Your task to perform on an android device: Search for pizza restaurants on Maps Image 0: 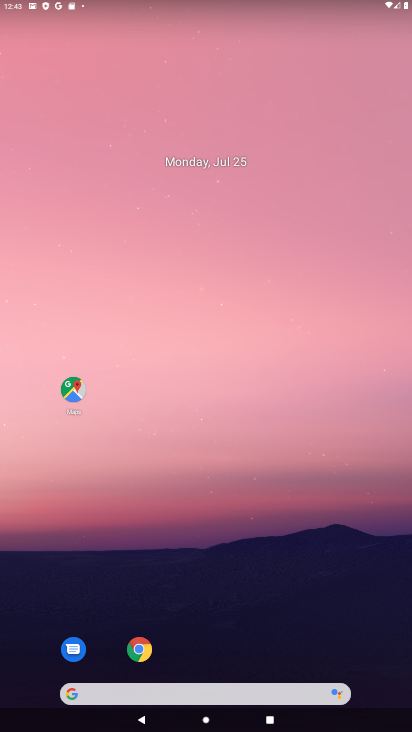
Step 0: drag from (259, 368) to (108, 200)
Your task to perform on an android device: Search for pizza restaurants on Maps Image 1: 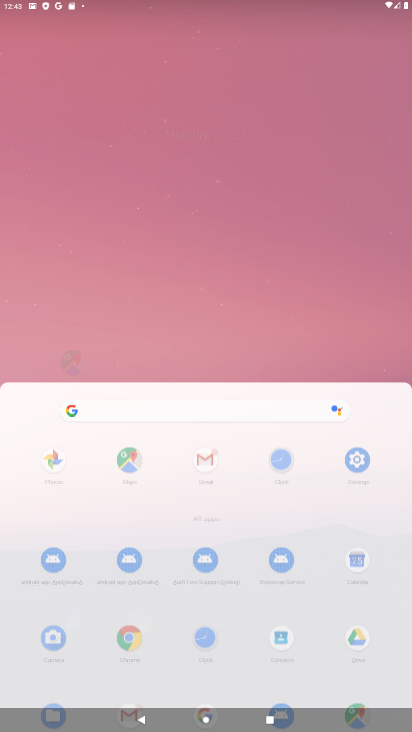
Step 1: drag from (198, 378) to (255, 63)
Your task to perform on an android device: Search for pizza restaurants on Maps Image 2: 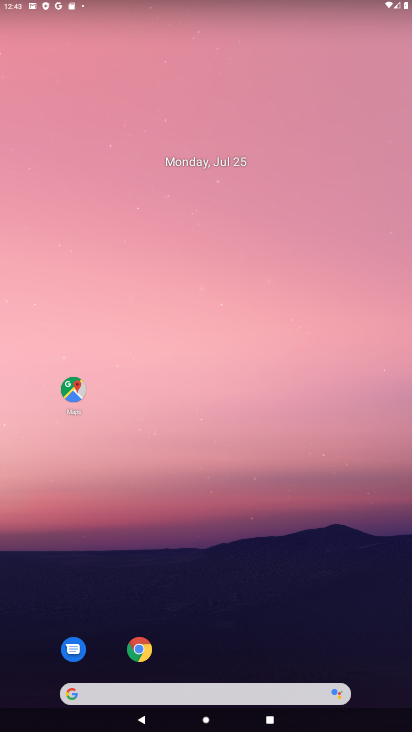
Step 2: drag from (202, 445) to (245, 20)
Your task to perform on an android device: Search for pizza restaurants on Maps Image 3: 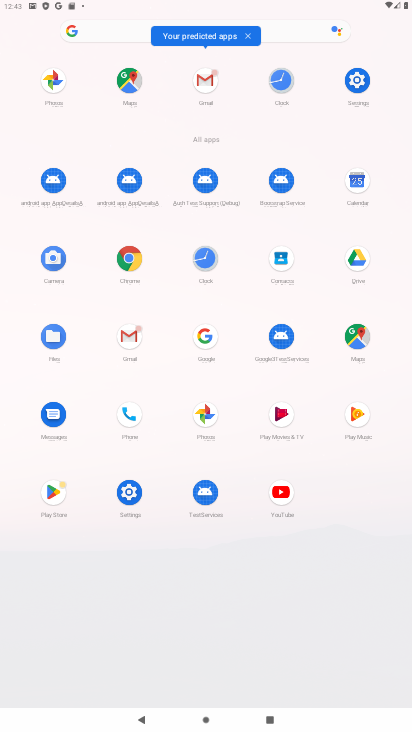
Step 3: click (355, 334)
Your task to perform on an android device: Search for pizza restaurants on Maps Image 4: 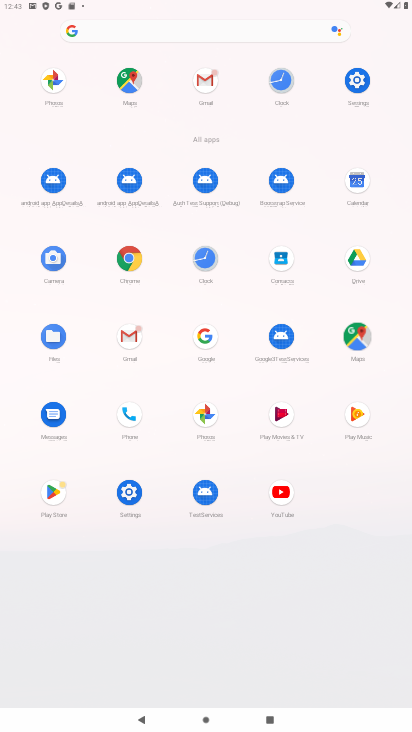
Step 4: click (355, 334)
Your task to perform on an android device: Search for pizza restaurants on Maps Image 5: 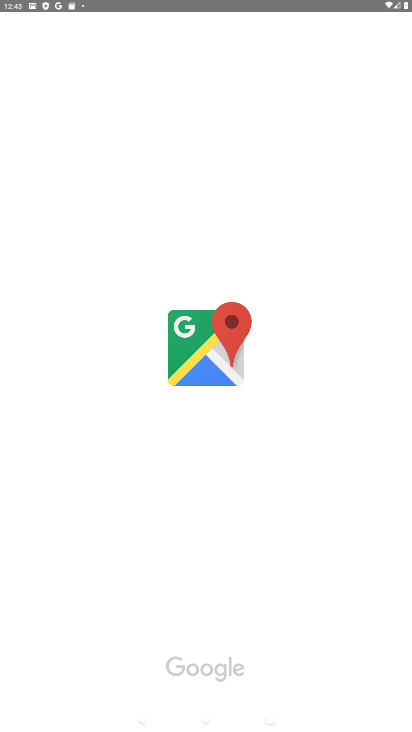
Step 5: click (356, 331)
Your task to perform on an android device: Search for pizza restaurants on Maps Image 6: 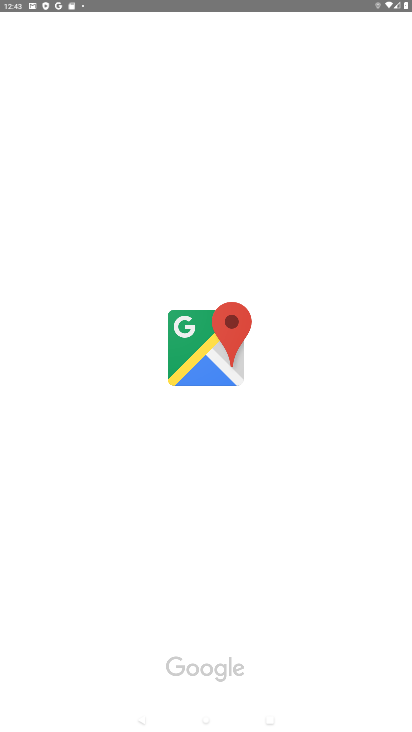
Step 6: click (356, 331)
Your task to perform on an android device: Search for pizza restaurants on Maps Image 7: 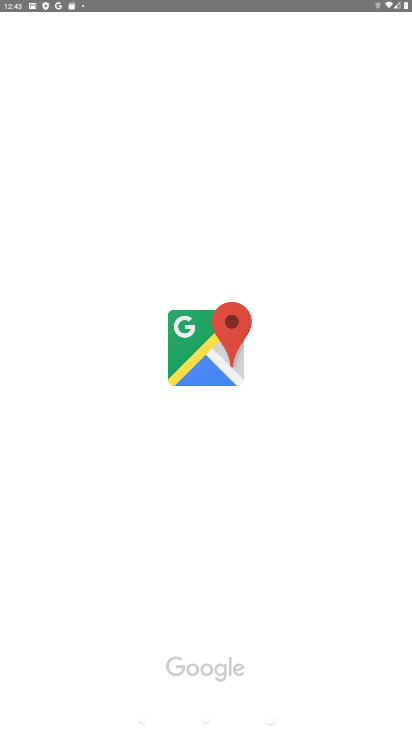
Step 7: click (193, 335)
Your task to perform on an android device: Search for pizza restaurants on Maps Image 8: 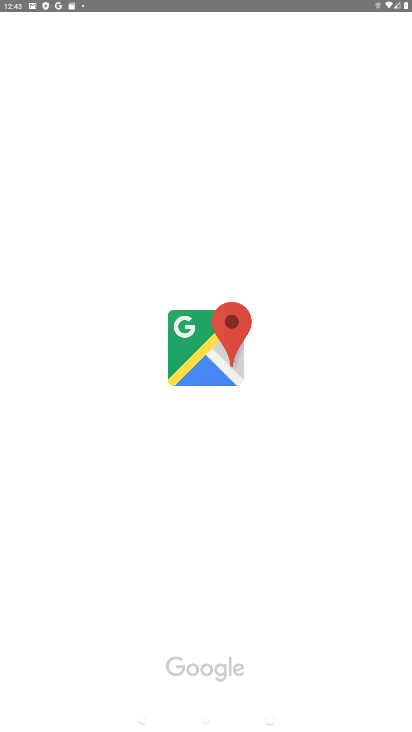
Step 8: click (196, 336)
Your task to perform on an android device: Search for pizza restaurants on Maps Image 9: 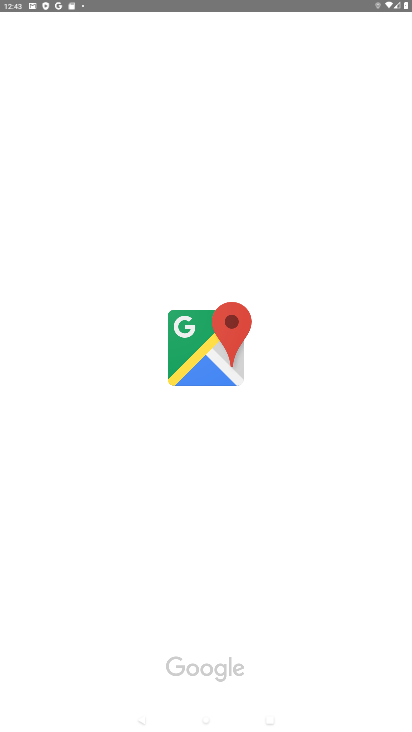
Step 9: click (200, 343)
Your task to perform on an android device: Search for pizza restaurants on Maps Image 10: 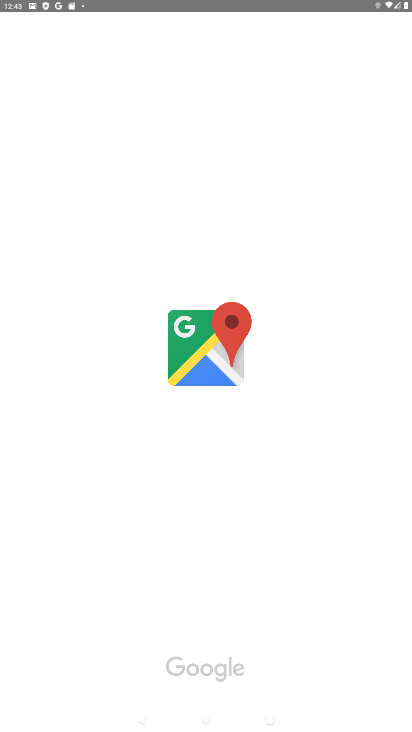
Step 10: click (205, 344)
Your task to perform on an android device: Search for pizza restaurants on Maps Image 11: 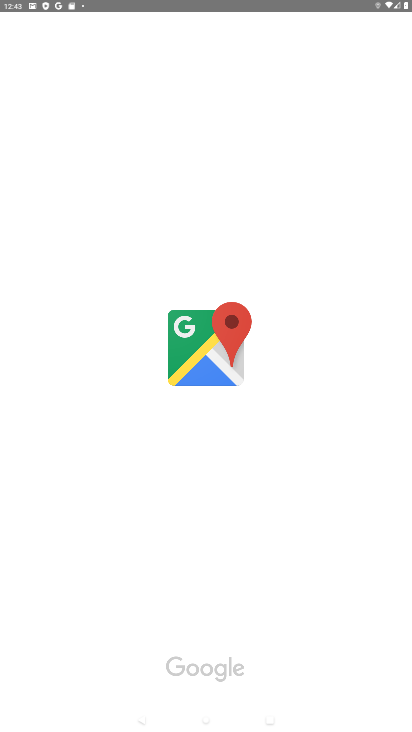
Step 11: click (211, 346)
Your task to perform on an android device: Search for pizza restaurants on Maps Image 12: 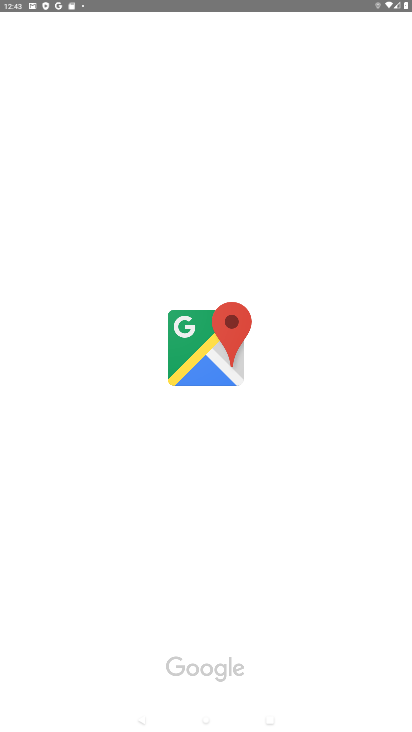
Step 12: click (215, 336)
Your task to perform on an android device: Search for pizza restaurants on Maps Image 13: 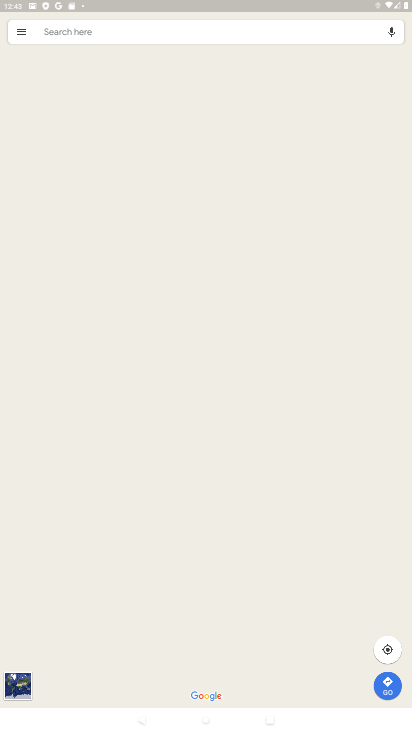
Step 13: click (204, 356)
Your task to perform on an android device: Search for pizza restaurants on Maps Image 14: 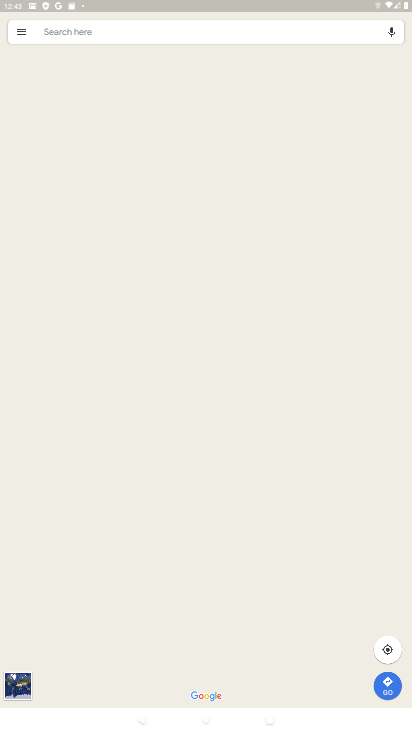
Step 14: click (196, 364)
Your task to perform on an android device: Search for pizza restaurants on Maps Image 15: 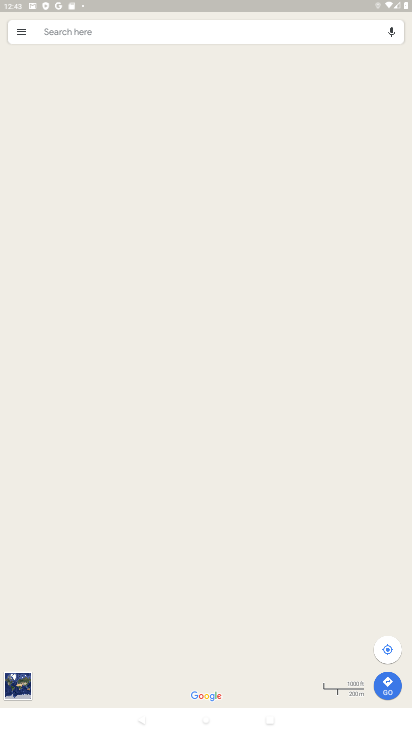
Step 15: click (66, 28)
Your task to perform on an android device: Search for pizza restaurants on Maps Image 16: 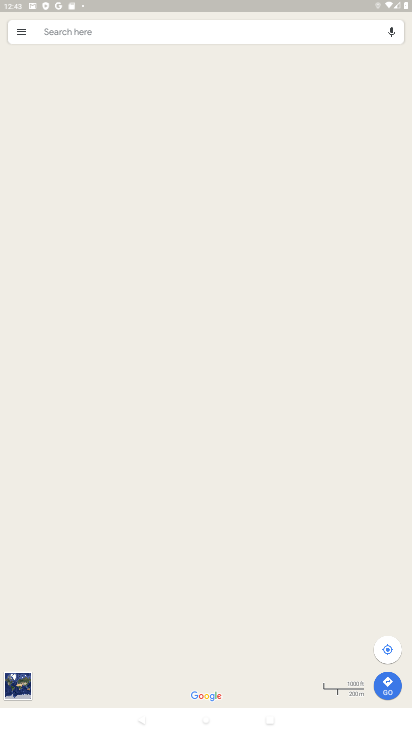
Step 16: click (66, 28)
Your task to perform on an android device: Search for pizza restaurants on Maps Image 17: 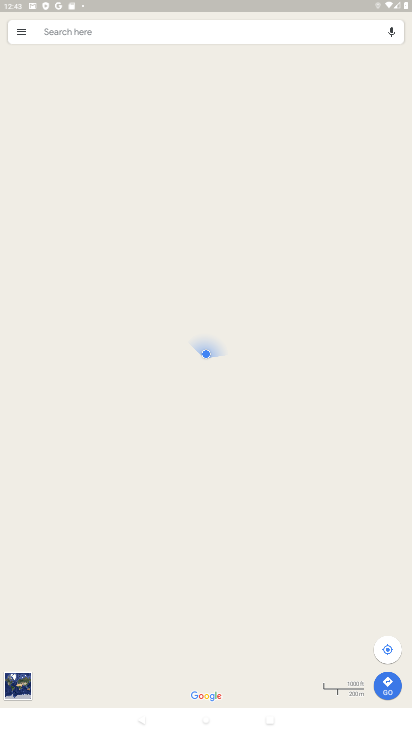
Step 17: click (59, 38)
Your task to perform on an android device: Search for pizza restaurants on Maps Image 18: 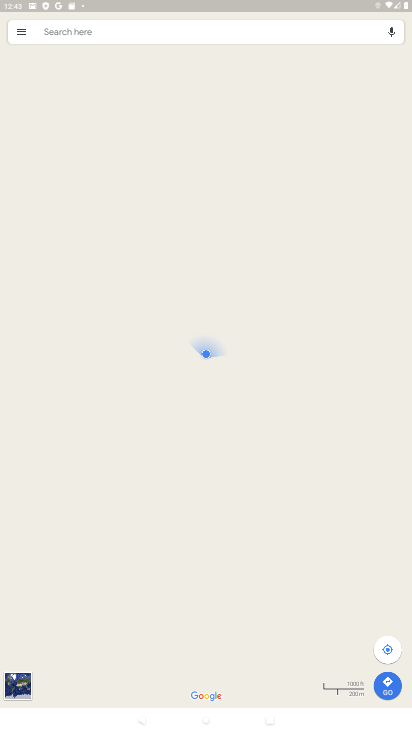
Step 18: click (52, 33)
Your task to perform on an android device: Search for pizza restaurants on Maps Image 19: 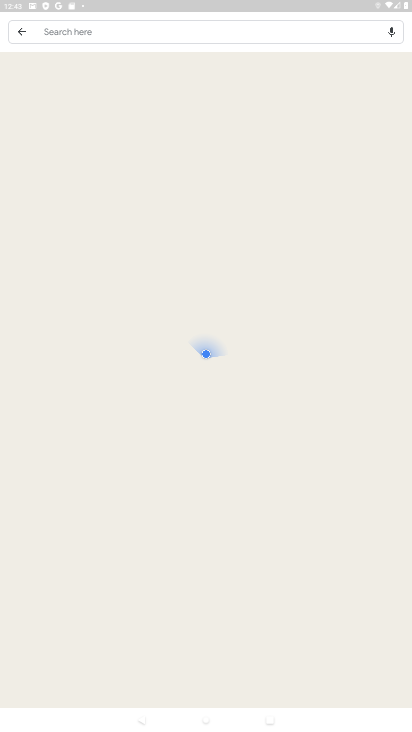
Step 19: click (52, 33)
Your task to perform on an android device: Search for pizza restaurants on Maps Image 20: 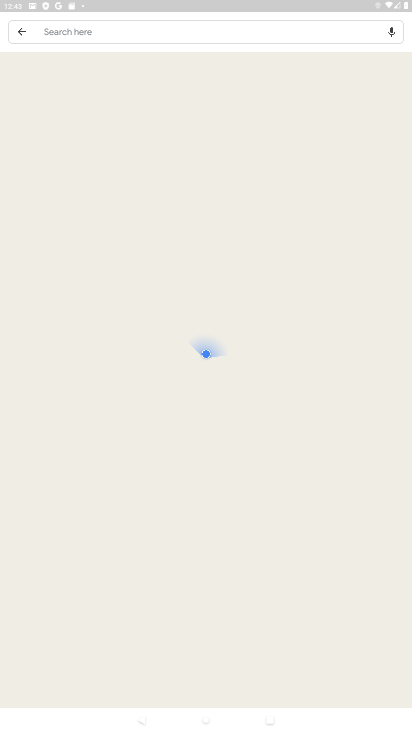
Step 20: click (53, 35)
Your task to perform on an android device: Search for pizza restaurants on Maps Image 21: 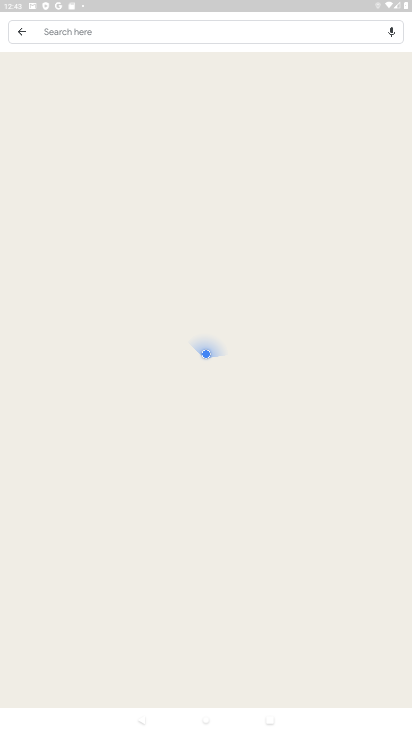
Step 21: click (51, 36)
Your task to perform on an android device: Search for pizza restaurants on Maps Image 22: 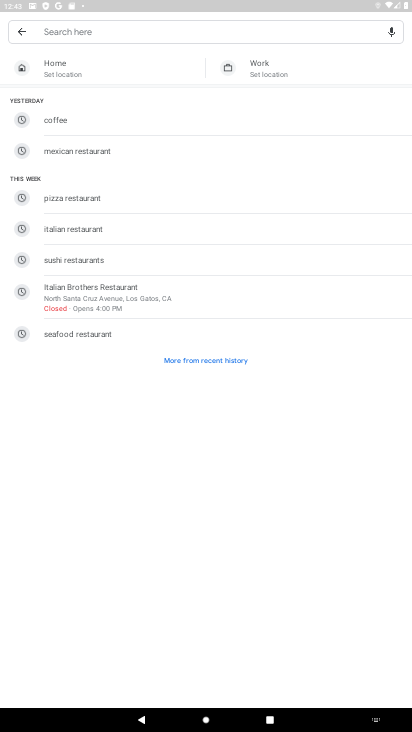
Step 22: type "pizz"
Your task to perform on an android device: Search for pizza restaurants on Maps Image 23: 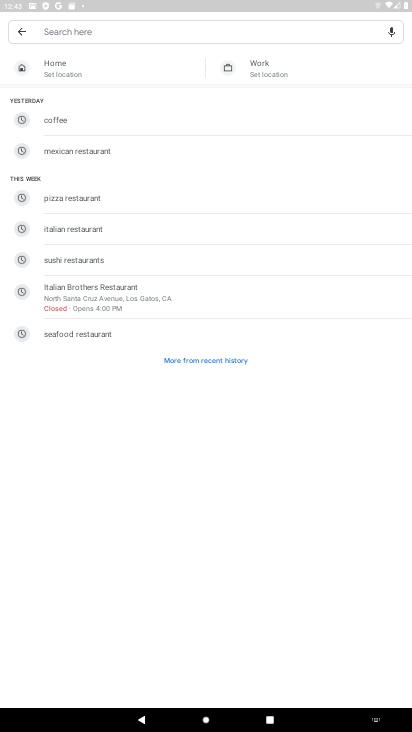
Step 23: click (57, 181)
Your task to perform on an android device: Search for pizza restaurants on Maps Image 24: 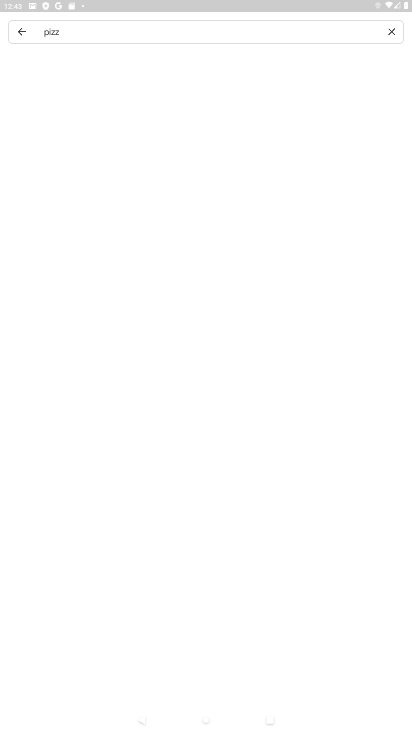
Step 24: click (76, 197)
Your task to perform on an android device: Search for pizza restaurants on Maps Image 25: 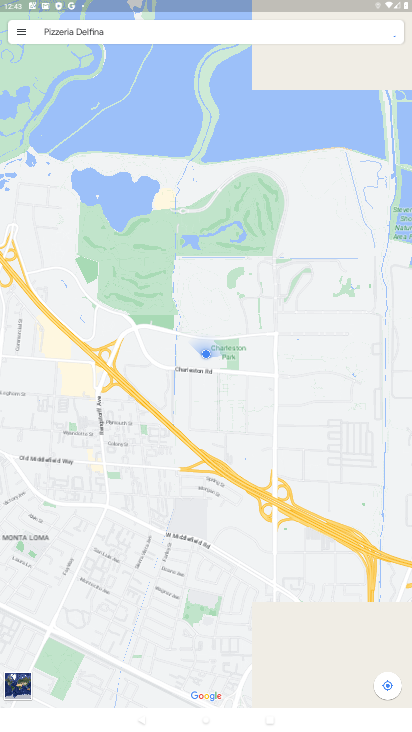
Step 25: click (131, 32)
Your task to perform on an android device: Search for pizza restaurants on Maps Image 26: 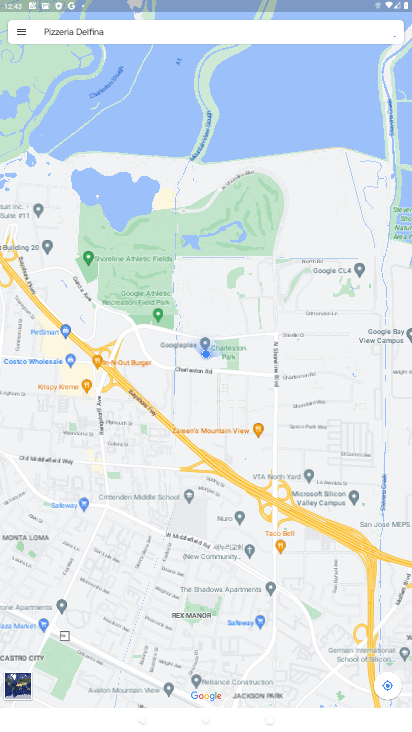
Step 26: click (125, 28)
Your task to perform on an android device: Search for pizza restaurants on Maps Image 27: 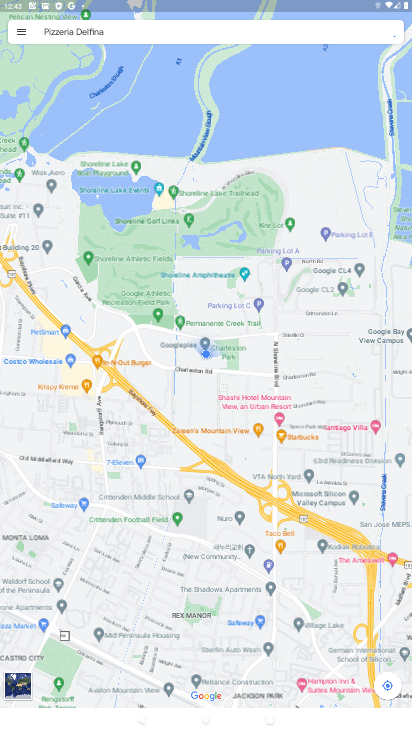
Step 27: click (130, 28)
Your task to perform on an android device: Search for pizza restaurants on Maps Image 28: 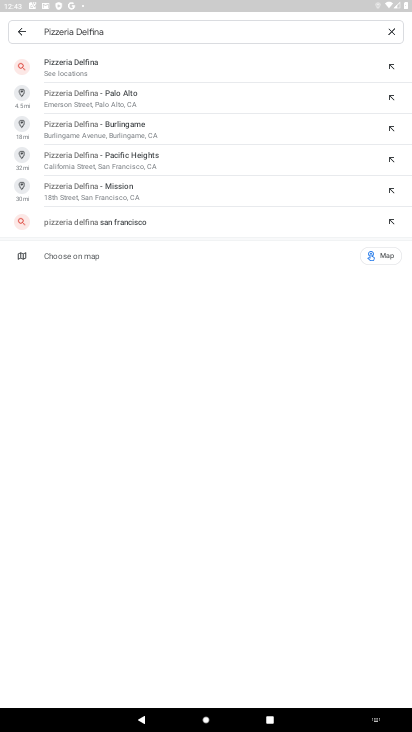
Step 28: task complete